Your task to perform on an android device: Go to settings Image 0: 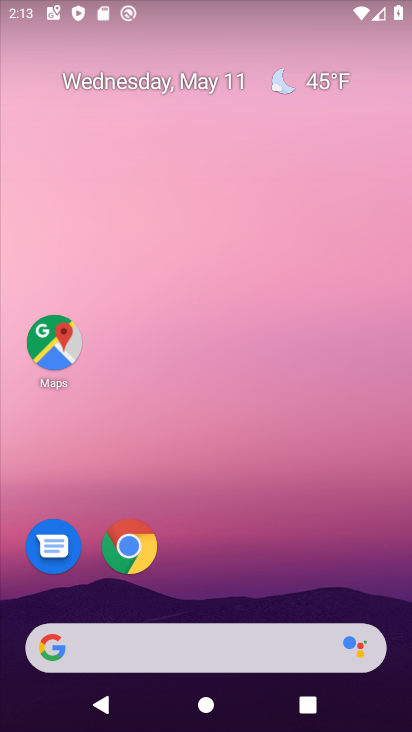
Step 0: drag from (232, 565) to (320, 2)
Your task to perform on an android device: Go to settings Image 1: 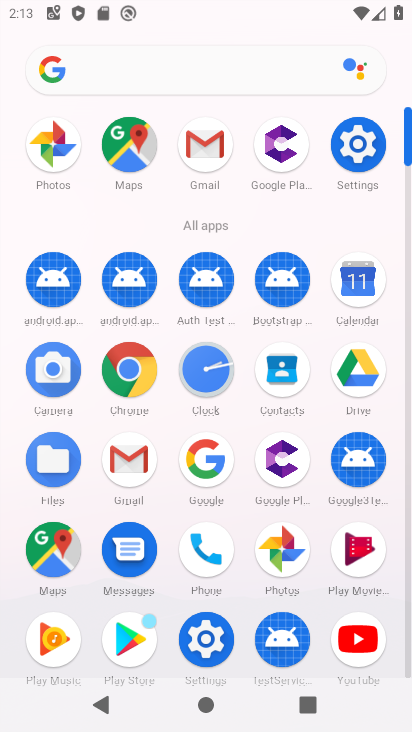
Step 1: click (209, 642)
Your task to perform on an android device: Go to settings Image 2: 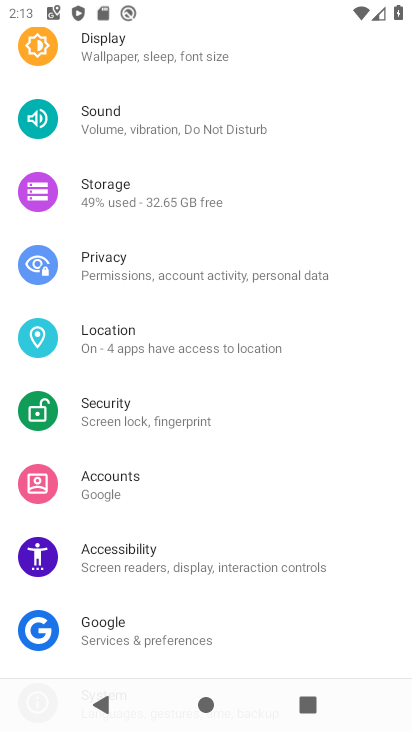
Step 2: task complete